Your task to perform on an android device: delete browsing data in the chrome app Image 0: 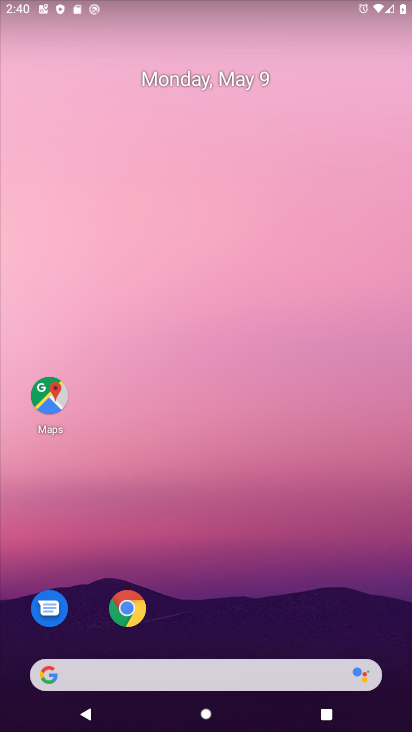
Step 0: click (130, 609)
Your task to perform on an android device: delete browsing data in the chrome app Image 1: 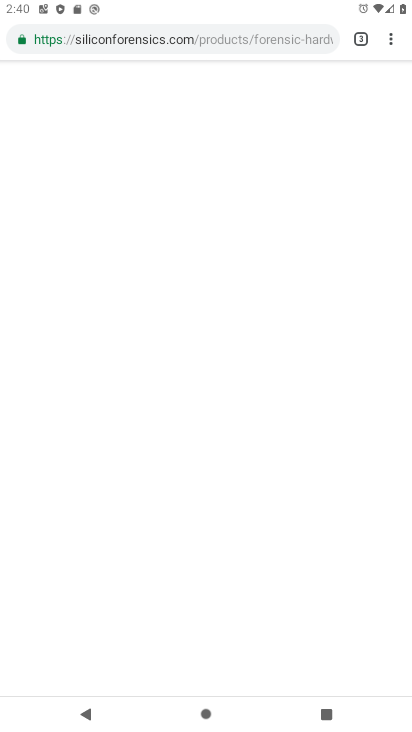
Step 1: click (384, 50)
Your task to perform on an android device: delete browsing data in the chrome app Image 2: 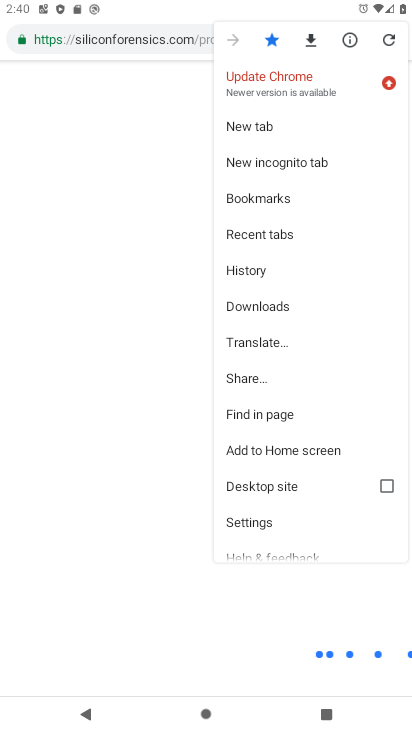
Step 2: click (223, 263)
Your task to perform on an android device: delete browsing data in the chrome app Image 3: 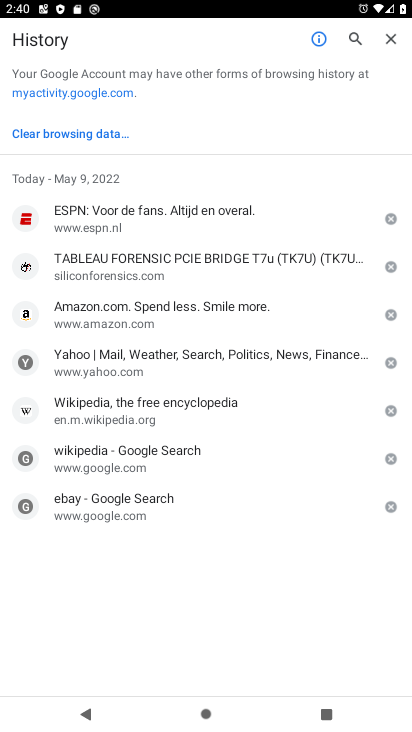
Step 3: click (108, 143)
Your task to perform on an android device: delete browsing data in the chrome app Image 4: 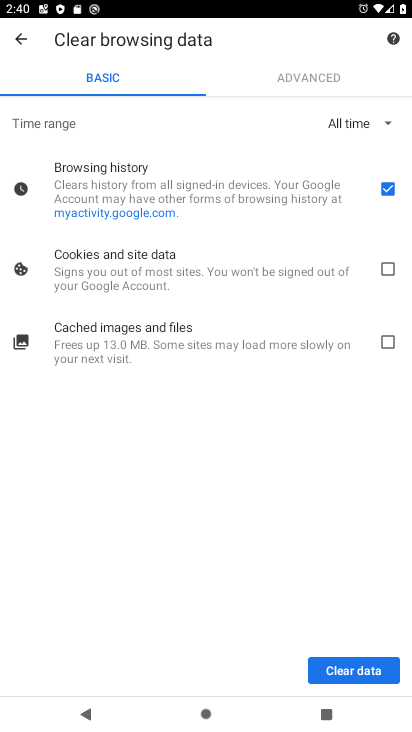
Step 4: click (345, 674)
Your task to perform on an android device: delete browsing data in the chrome app Image 5: 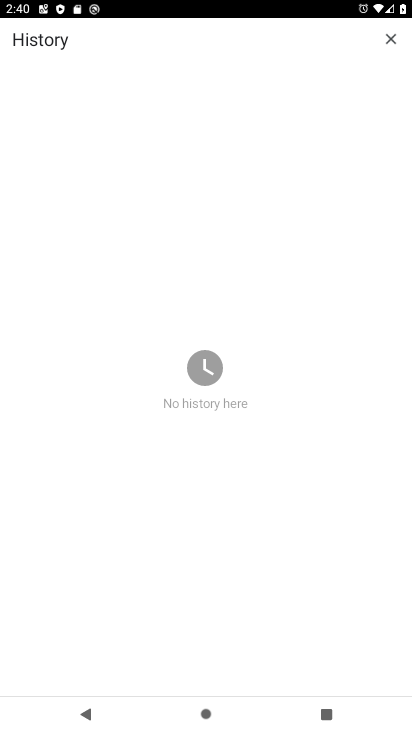
Step 5: task complete